Your task to perform on an android device: Go to sound settings Image 0: 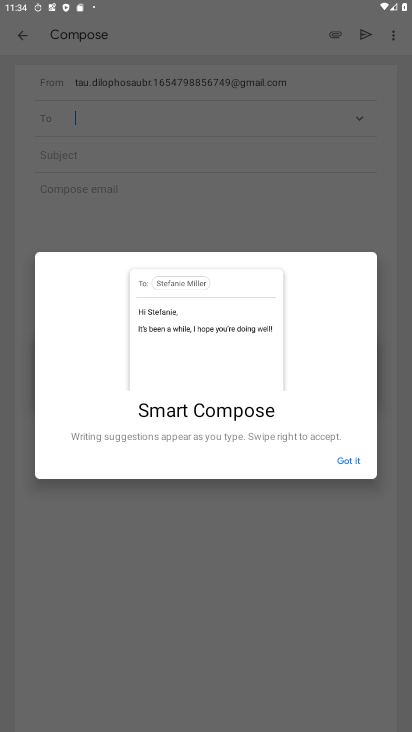
Step 0: press home button
Your task to perform on an android device: Go to sound settings Image 1: 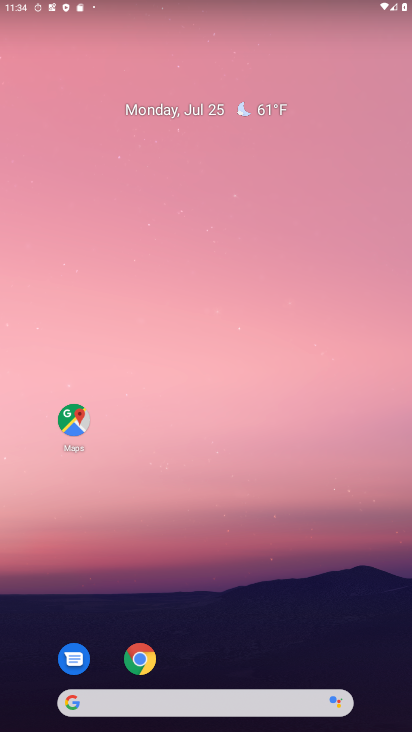
Step 1: drag from (9, 670) to (91, 316)
Your task to perform on an android device: Go to sound settings Image 2: 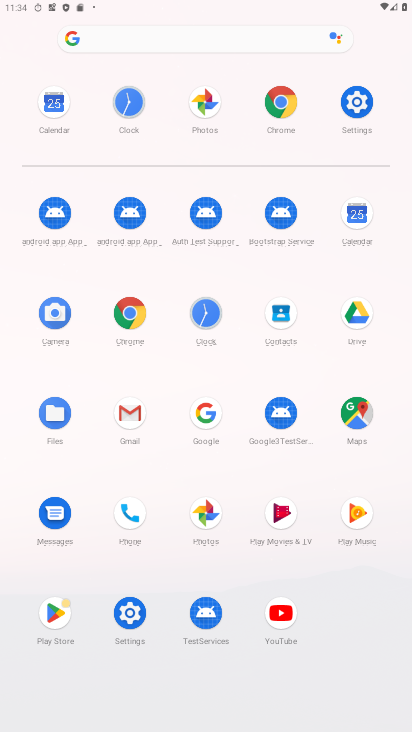
Step 2: click (127, 610)
Your task to perform on an android device: Go to sound settings Image 3: 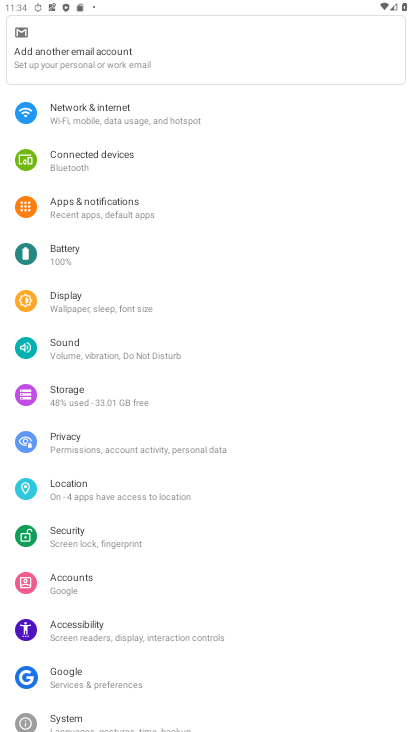
Step 3: click (71, 344)
Your task to perform on an android device: Go to sound settings Image 4: 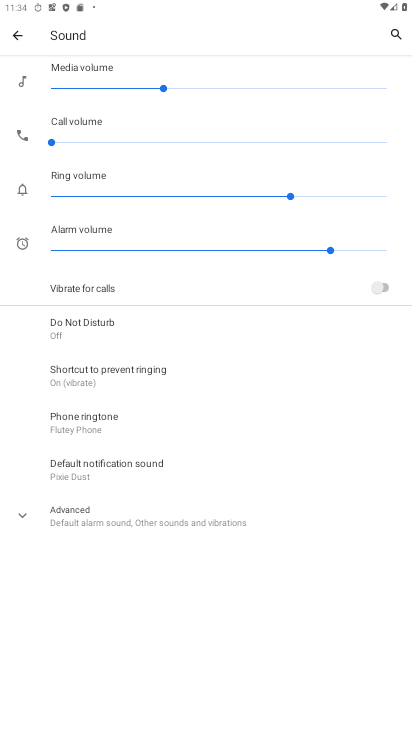
Step 4: task complete